Your task to perform on an android device: manage bookmarks in the chrome app Image 0: 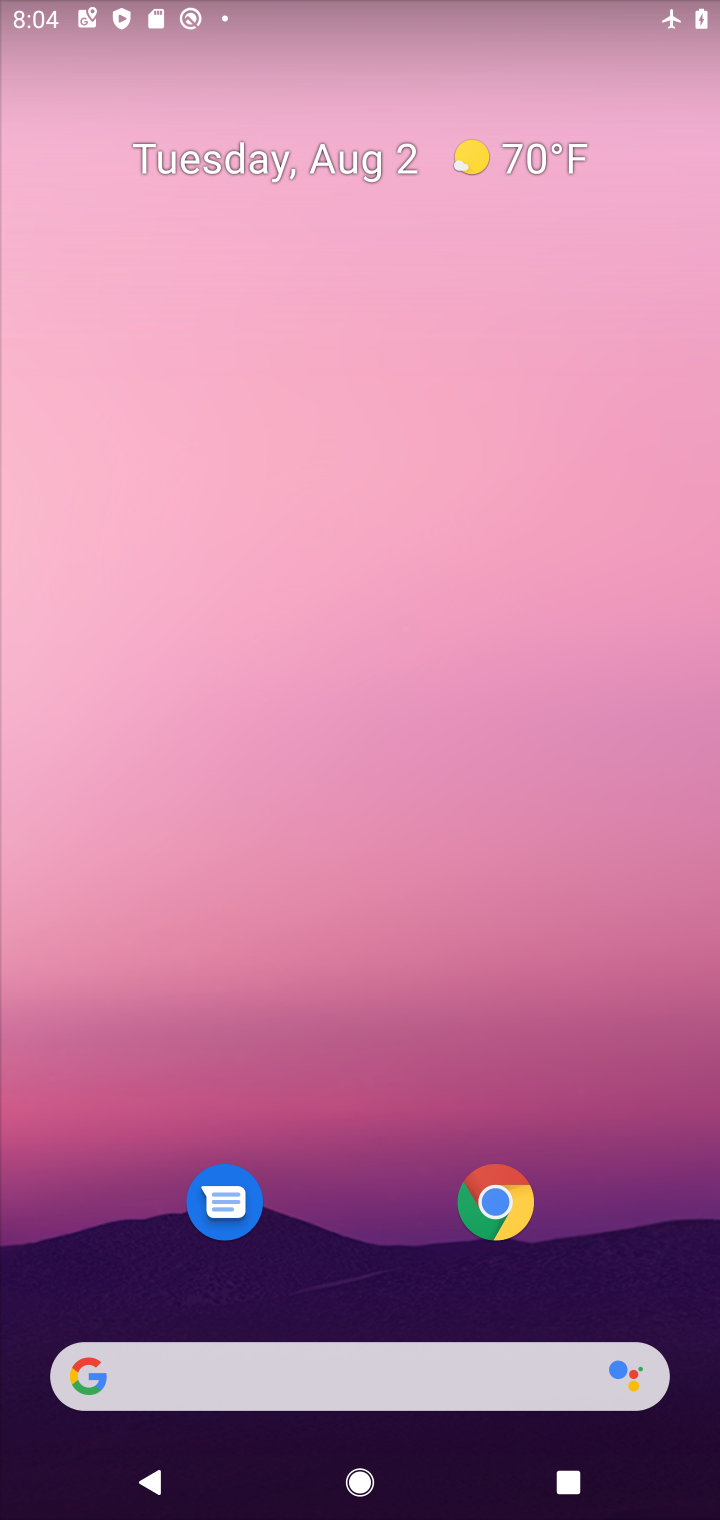
Step 0: click (492, 1219)
Your task to perform on an android device: manage bookmarks in the chrome app Image 1: 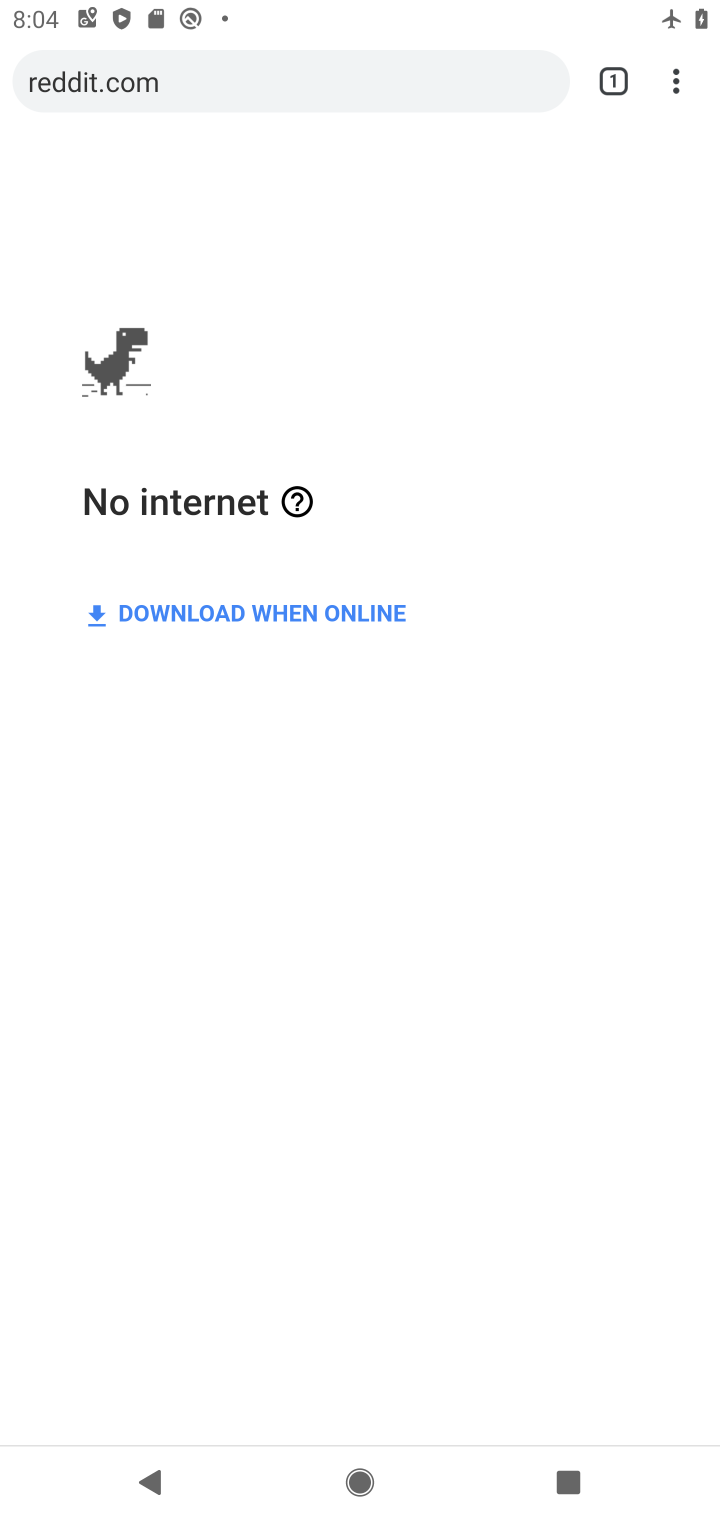
Step 1: click (678, 76)
Your task to perform on an android device: manage bookmarks in the chrome app Image 2: 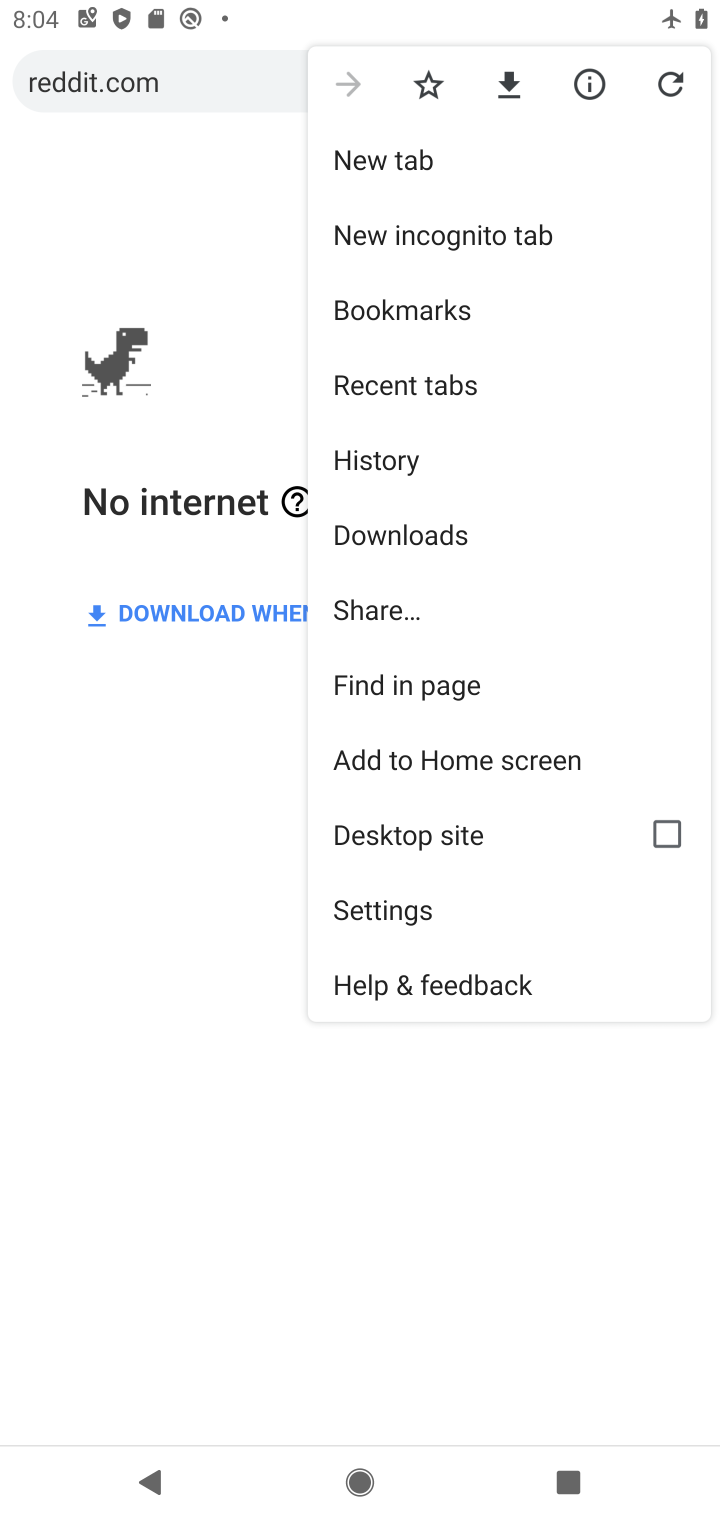
Step 2: click (388, 308)
Your task to perform on an android device: manage bookmarks in the chrome app Image 3: 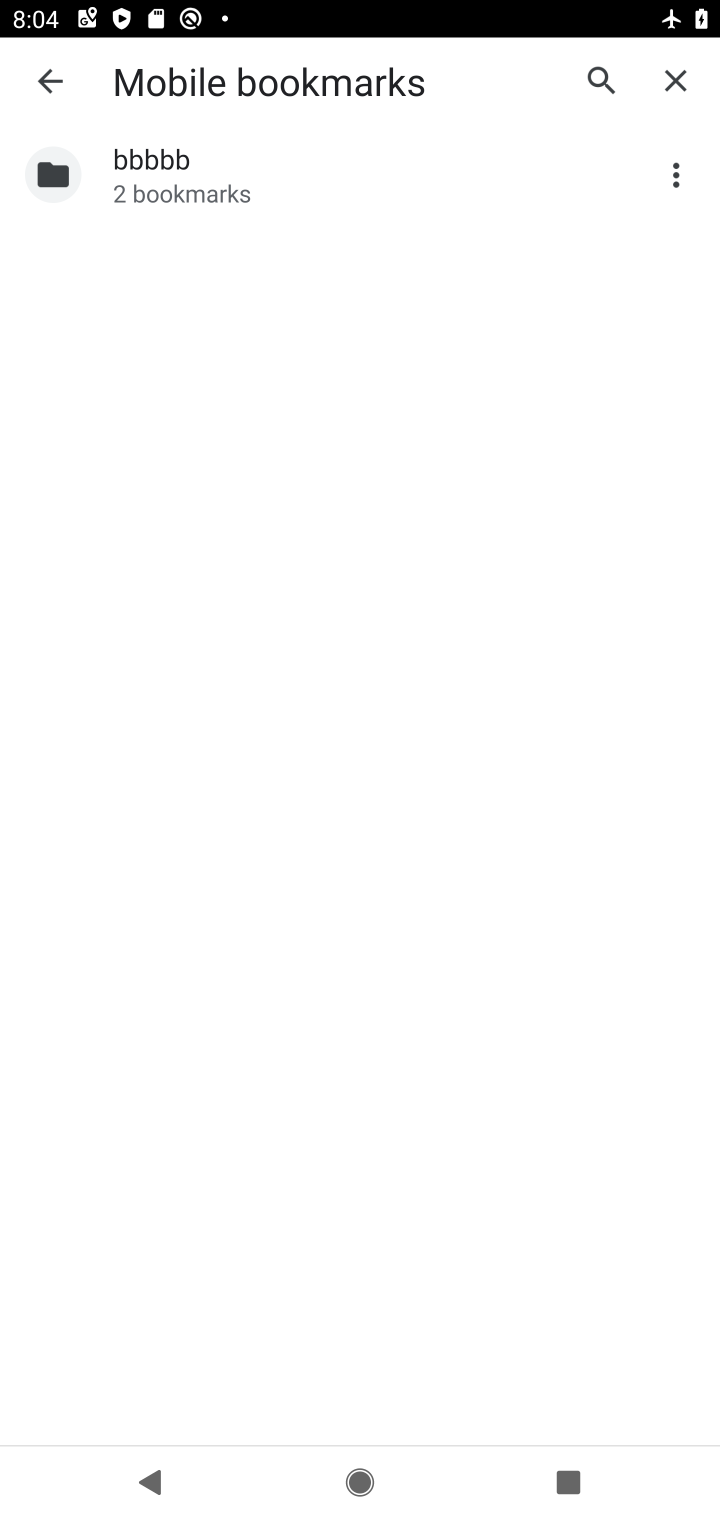
Step 3: click (676, 188)
Your task to perform on an android device: manage bookmarks in the chrome app Image 4: 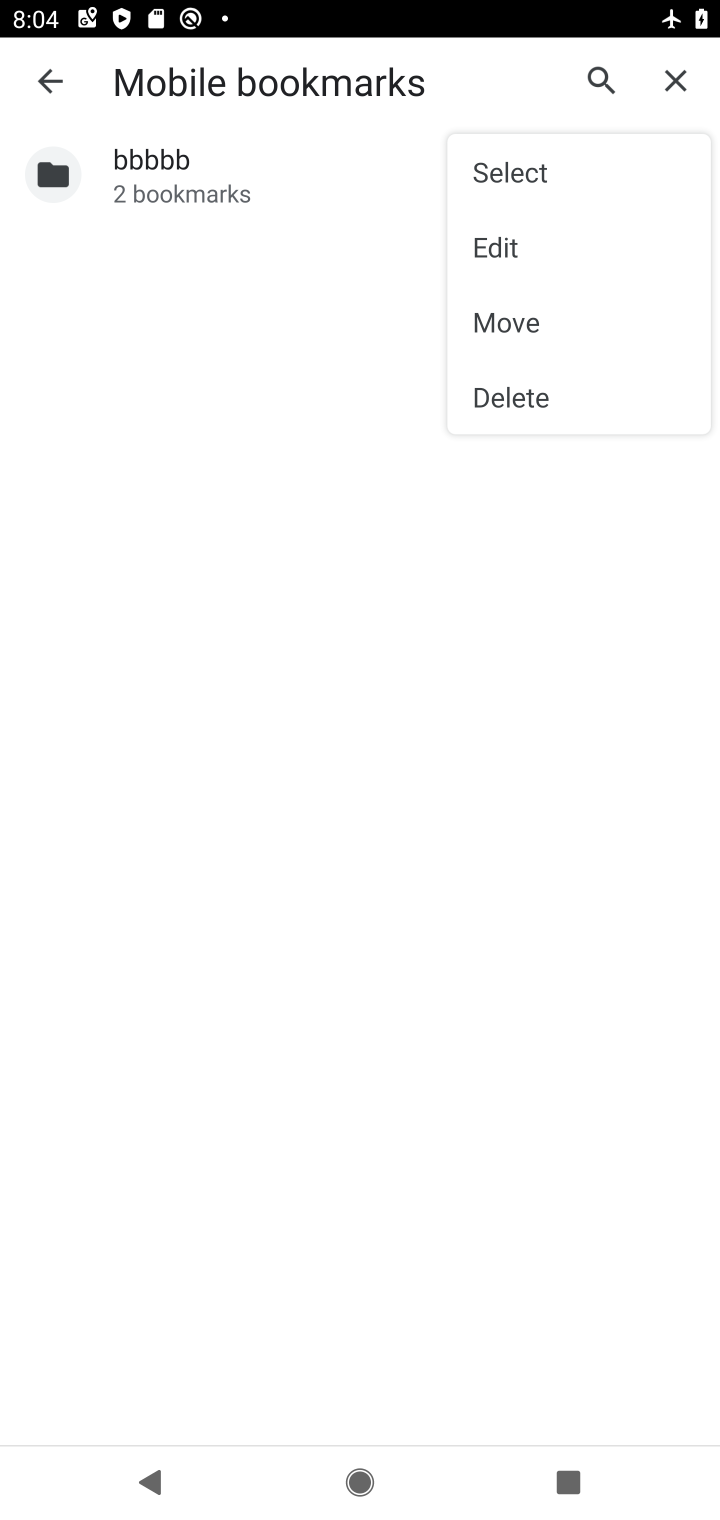
Step 4: click (508, 326)
Your task to perform on an android device: manage bookmarks in the chrome app Image 5: 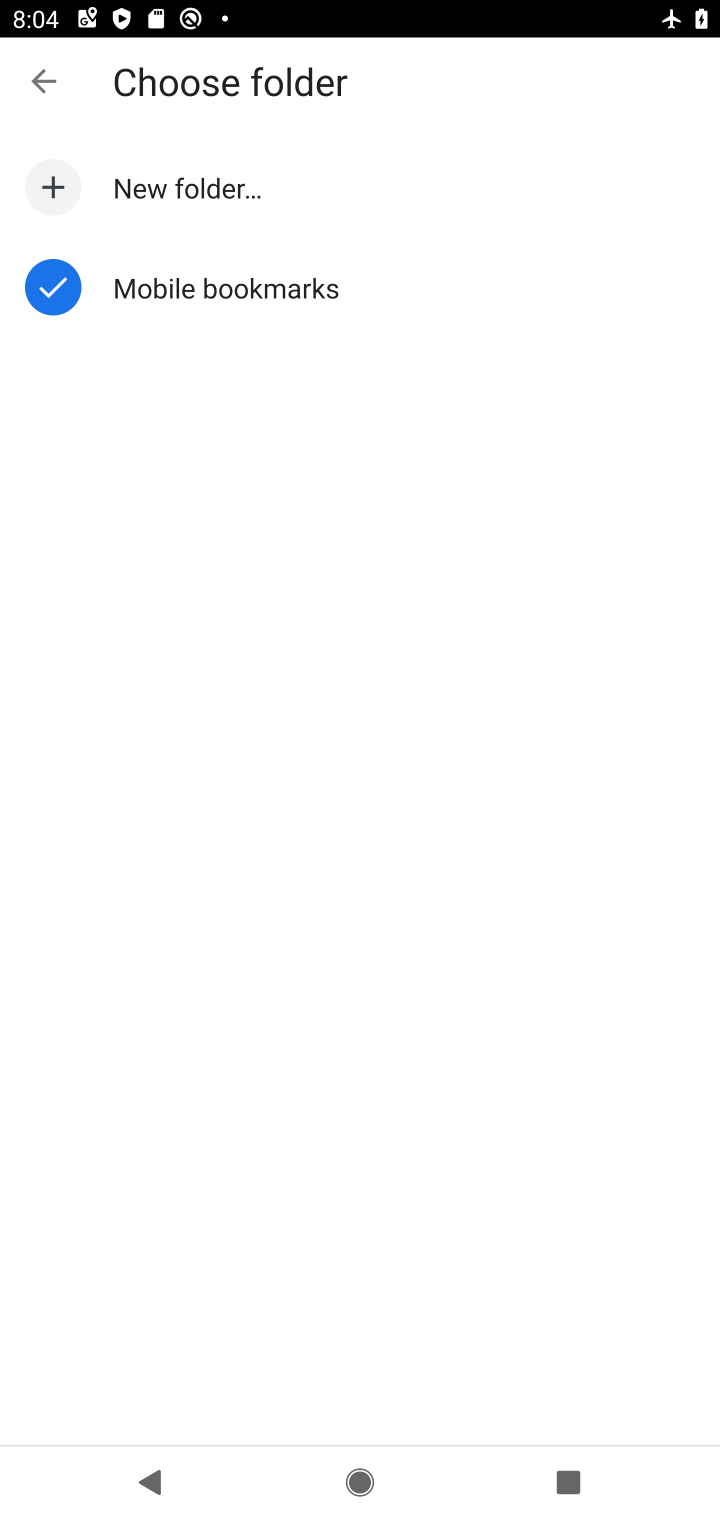
Step 5: click (215, 185)
Your task to perform on an android device: manage bookmarks in the chrome app Image 6: 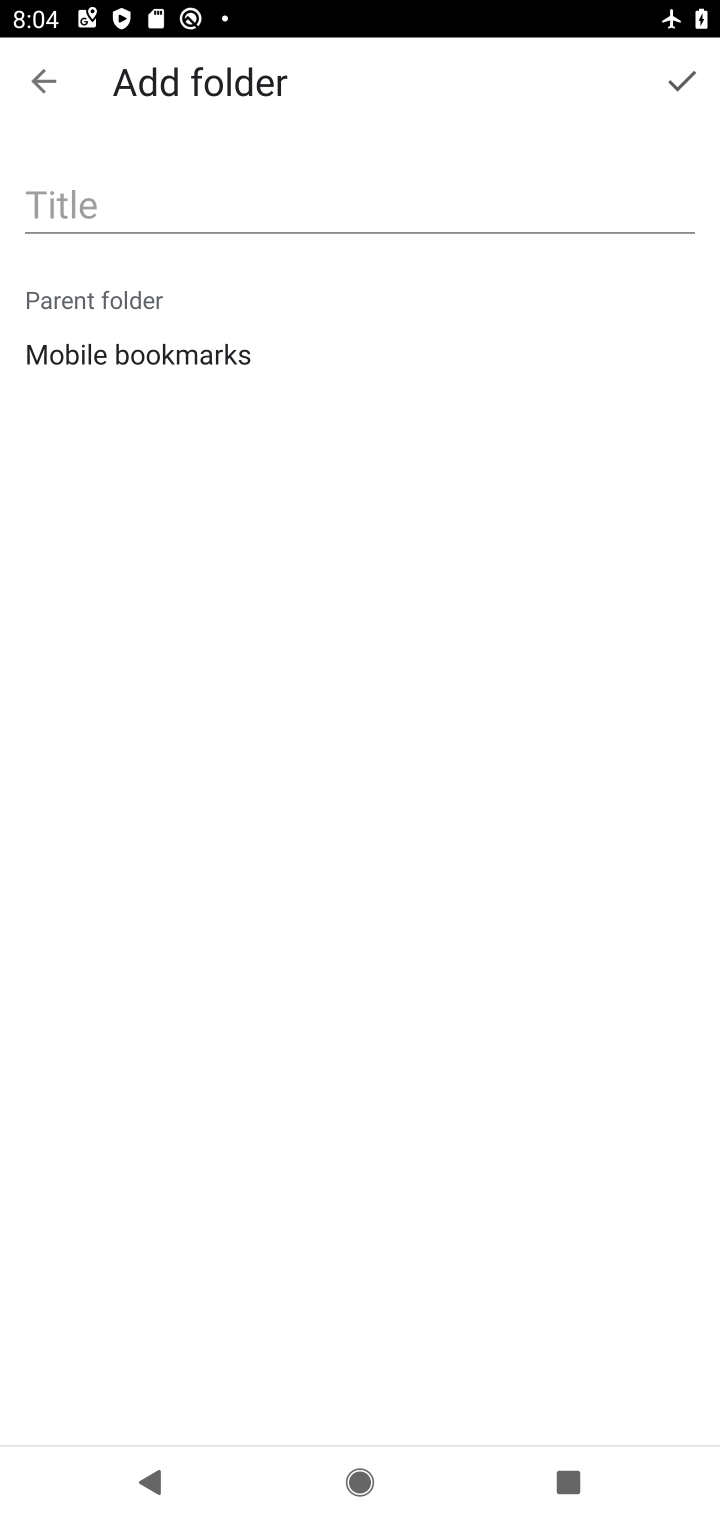
Step 6: click (213, 221)
Your task to perform on an android device: manage bookmarks in the chrome app Image 7: 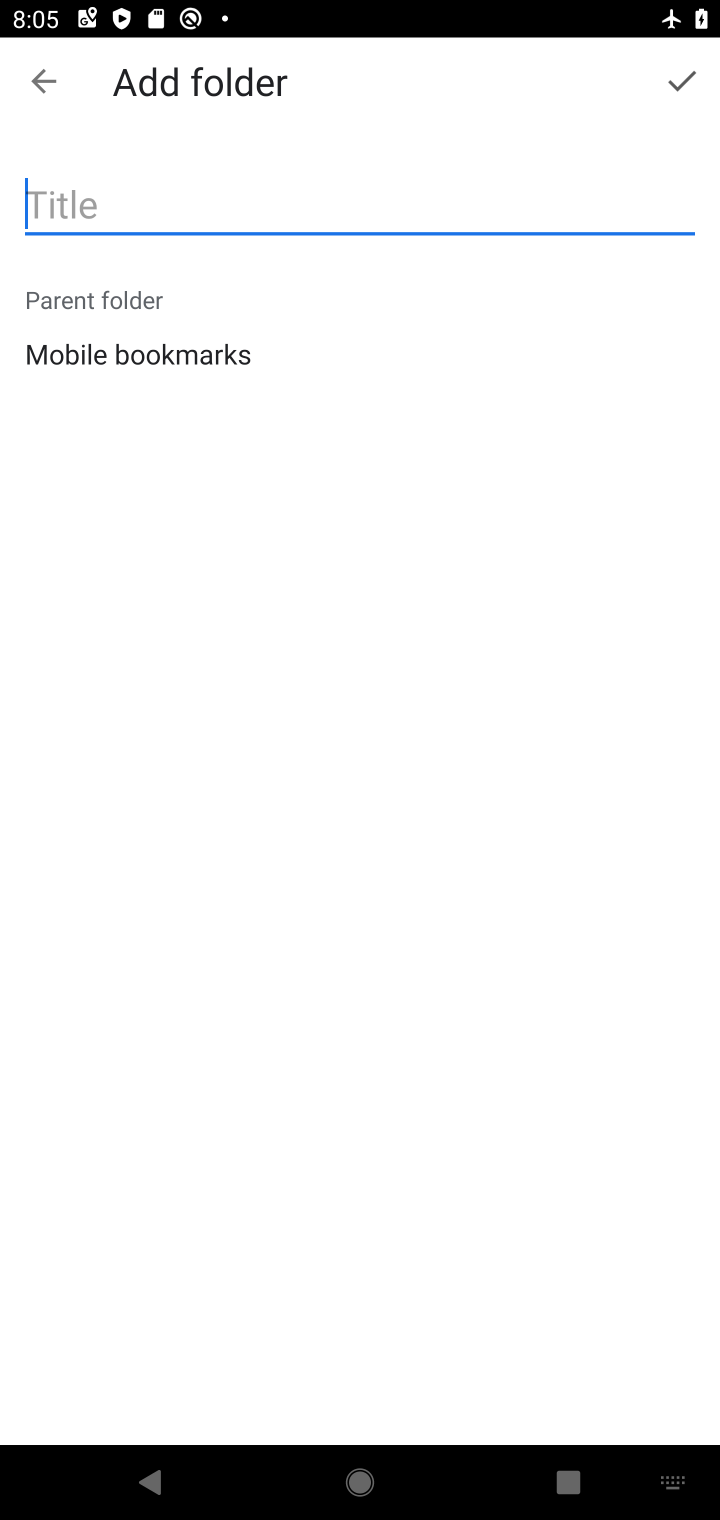
Step 7: type "my folder"
Your task to perform on an android device: manage bookmarks in the chrome app Image 8: 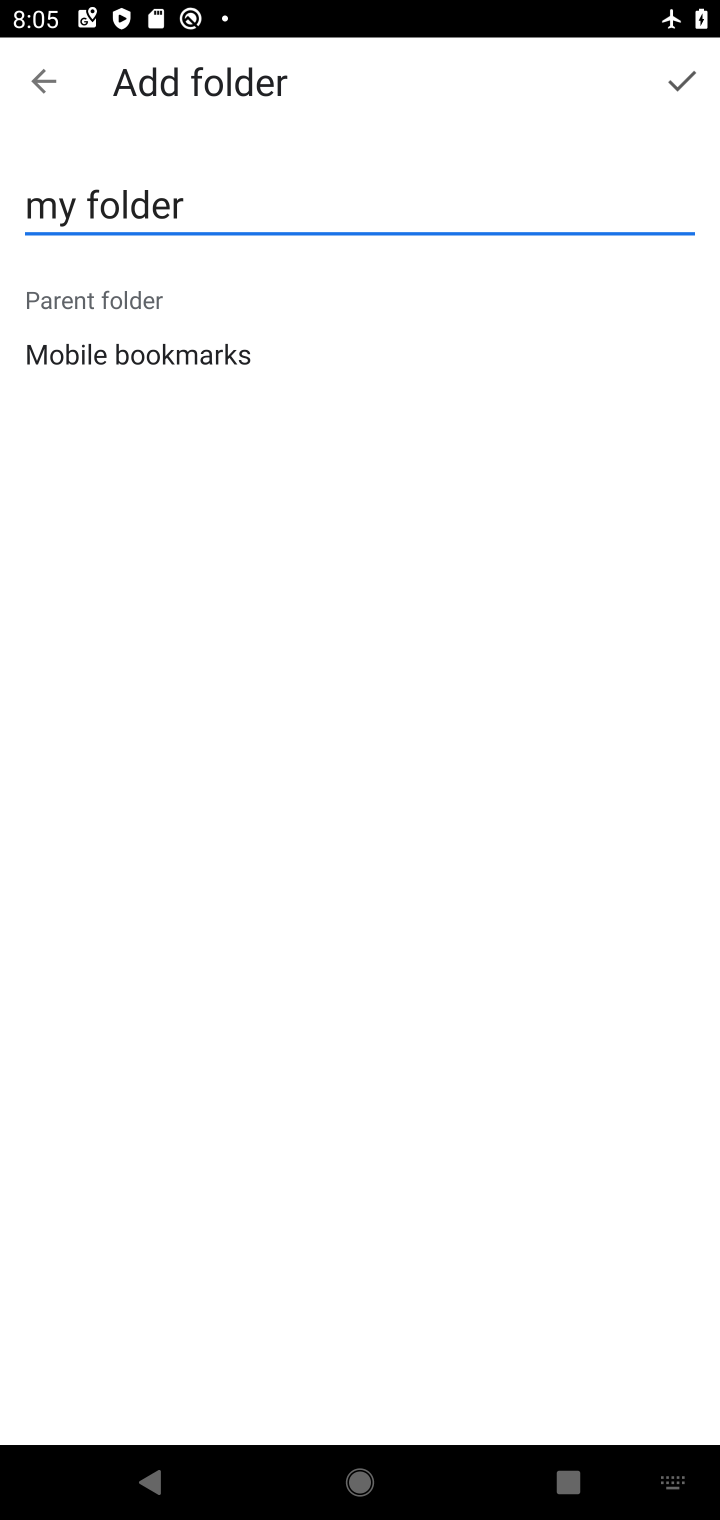
Step 8: click (685, 79)
Your task to perform on an android device: manage bookmarks in the chrome app Image 9: 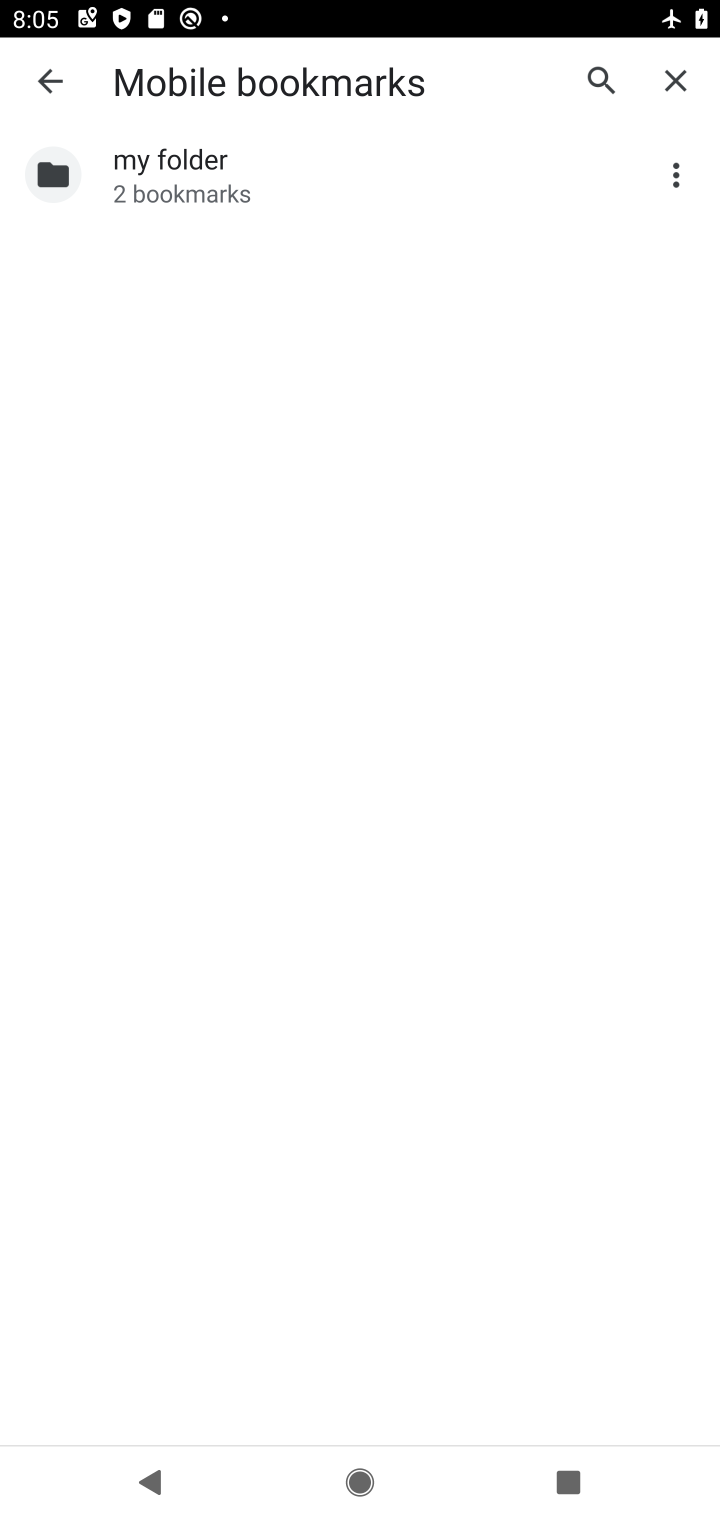
Step 9: task complete